Your task to perform on an android device: change alarm snooze length Image 0: 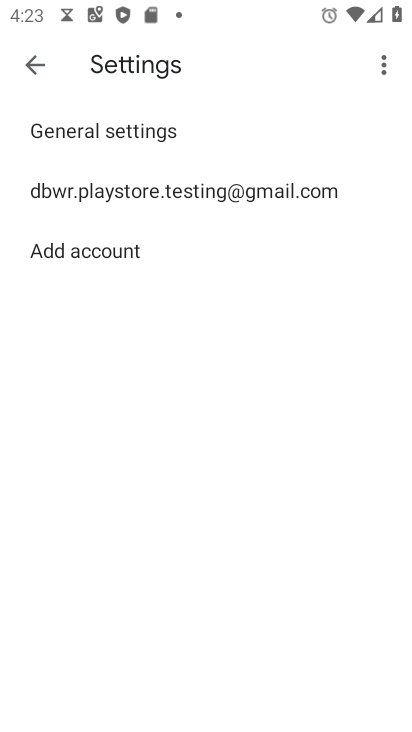
Step 0: press home button
Your task to perform on an android device: change alarm snooze length Image 1: 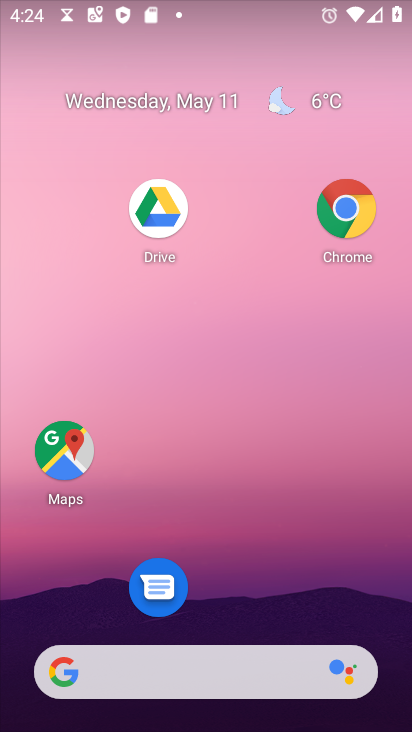
Step 1: drag from (286, 521) to (309, 243)
Your task to perform on an android device: change alarm snooze length Image 2: 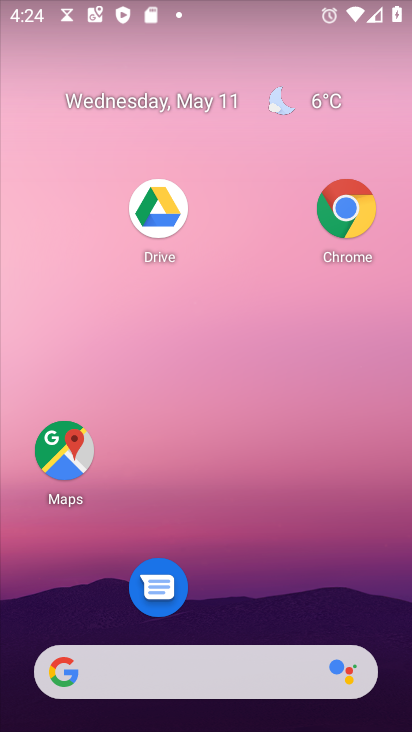
Step 2: drag from (223, 552) to (226, 97)
Your task to perform on an android device: change alarm snooze length Image 3: 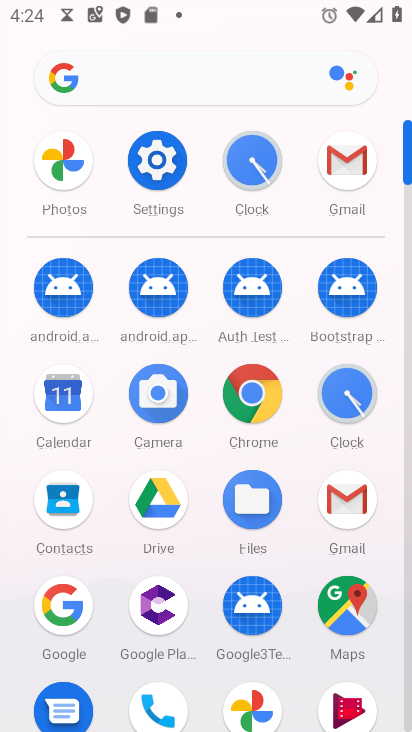
Step 3: click (345, 399)
Your task to perform on an android device: change alarm snooze length Image 4: 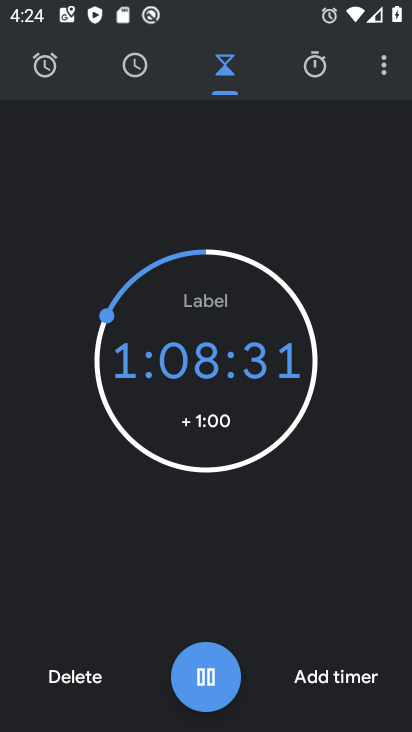
Step 4: click (139, 57)
Your task to perform on an android device: change alarm snooze length Image 5: 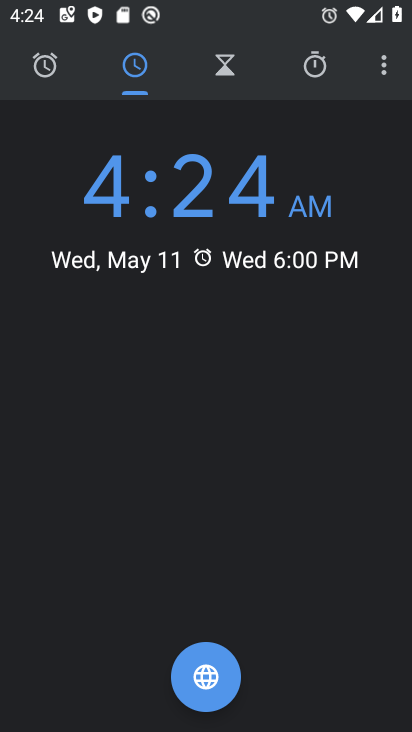
Step 5: click (58, 65)
Your task to perform on an android device: change alarm snooze length Image 6: 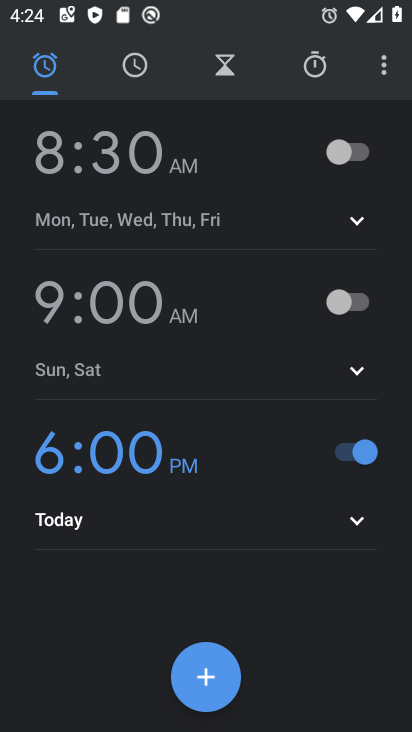
Step 6: click (219, 491)
Your task to perform on an android device: change alarm snooze length Image 7: 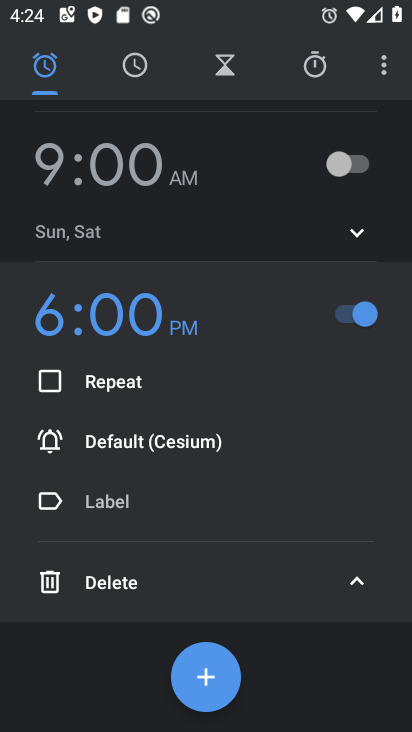
Step 7: click (125, 399)
Your task to perform on an android device: change alarm snooze length Image 8: 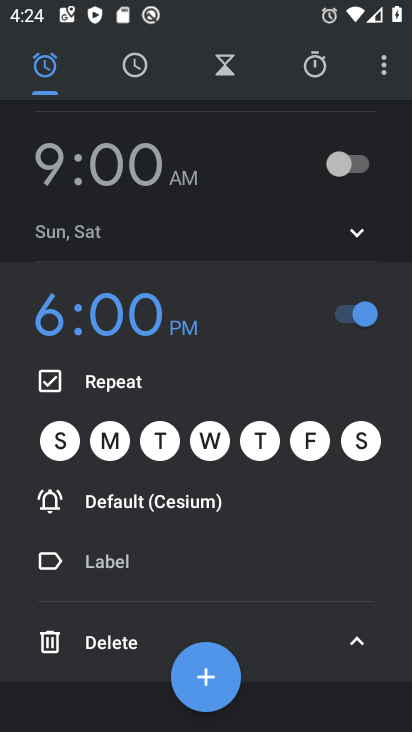
Step 8: click (166, 555)
Your task to perform on an android device: change alarm snooze length Image 9: 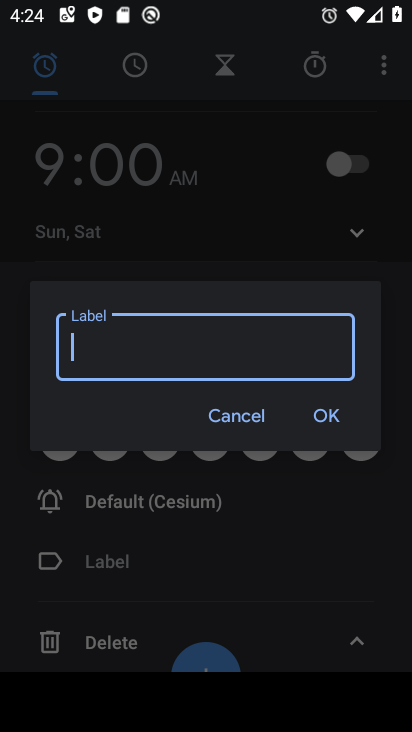
Step 9: click (211, 415)
Your task to perform on an android device: change alarm snooze length Image 10: 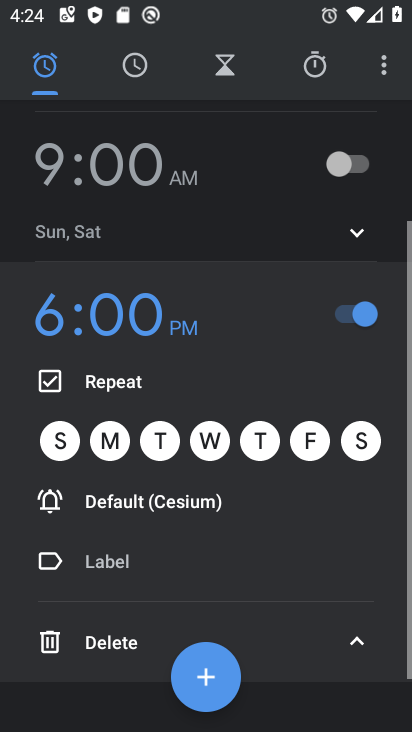
Step 10: click (168, 512)
Your task to perform on an android device: change alarm snooze length Image 11: 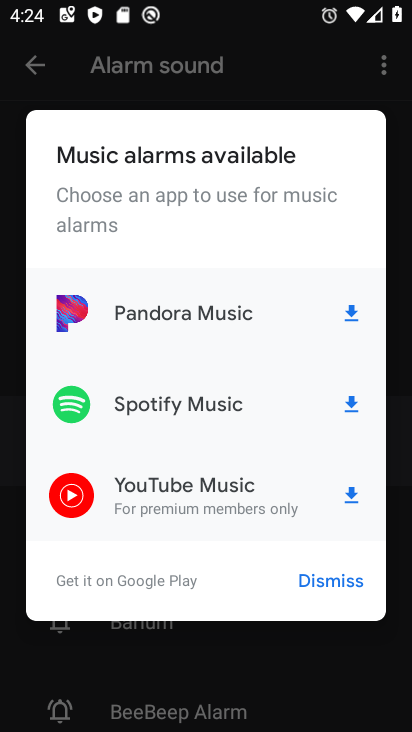
Step 11: task complete